Your task to perform on an android device: change notification settings in the gmail app Image 0: 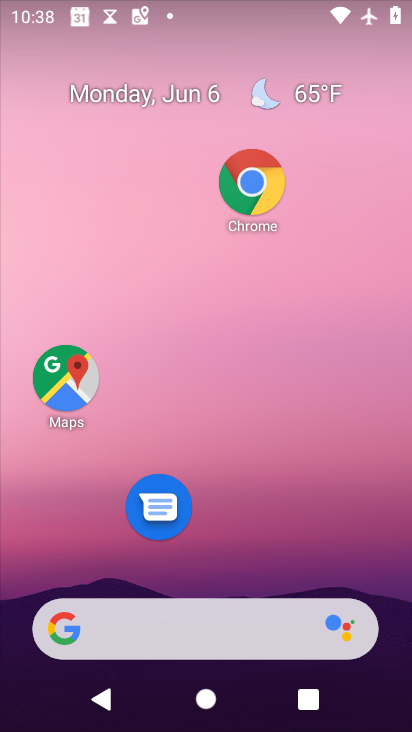
Step 0: drag from (290, 544) to (282, 234)
Your task to perform on an android device: change notification settings in the gmail app Image 1: 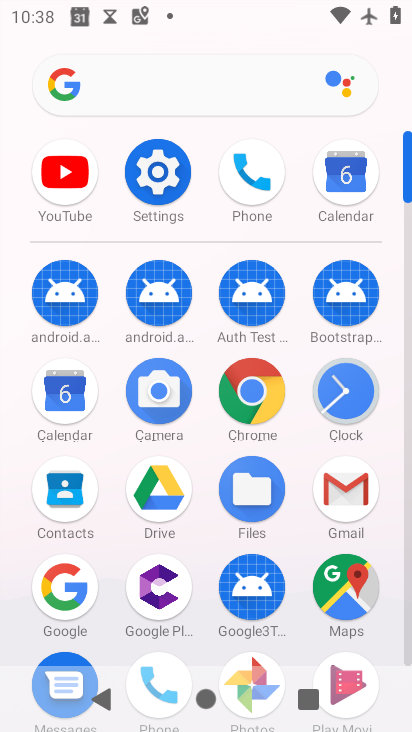
Step 1: click (332, 491)
Your task to perform on an android device: change notification settings in the gmail app Image 2: 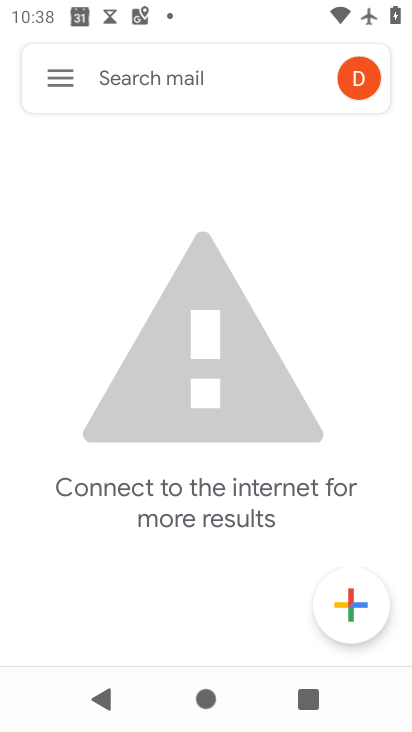
Step 2: click (48, 80)
Your task to perform on an android device: change notification settings in the gmail app Image 3: 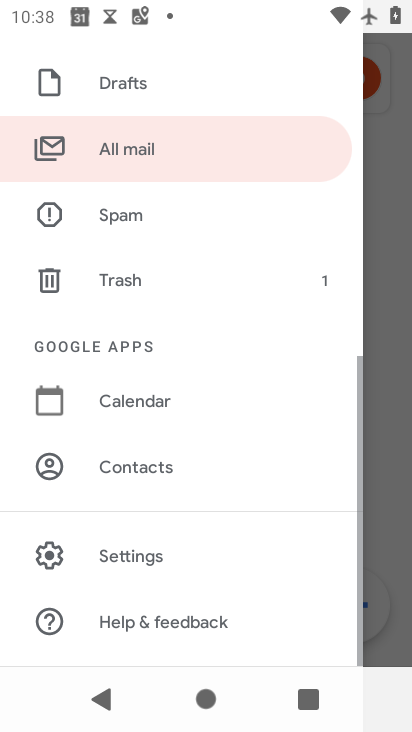
Step 3: click (145, 554)
Your task to perform on an android device: change notification settings in the gmail app Image 4: 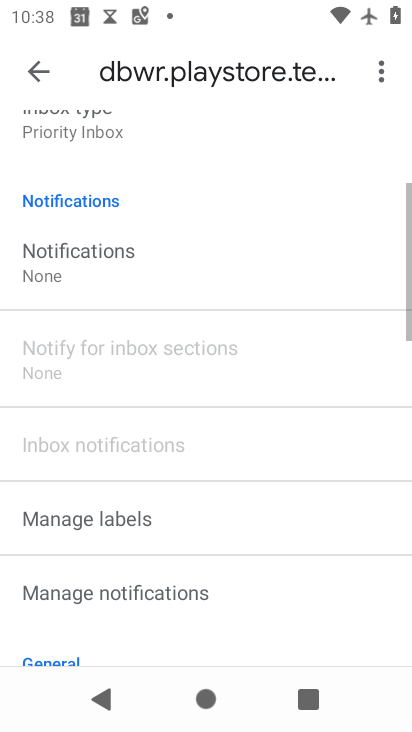
Step 4: click (99, 267)
Your task to perform on an android device: change notification settings in the gmail app Image 5: 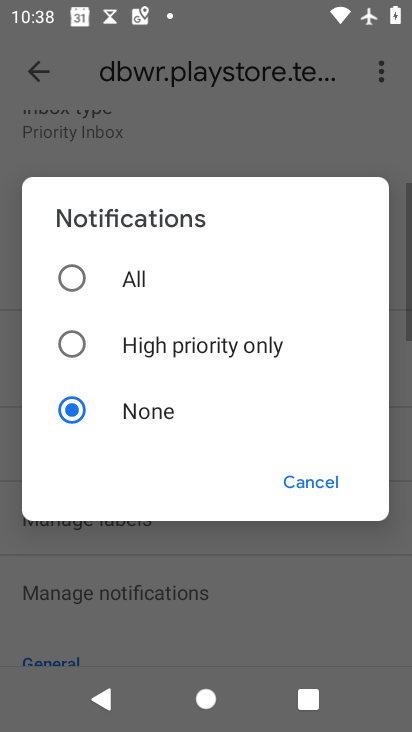
Step 5: click (111, 264)
Your task to perform on an android device: change notification settings in the gmail app Image 6: 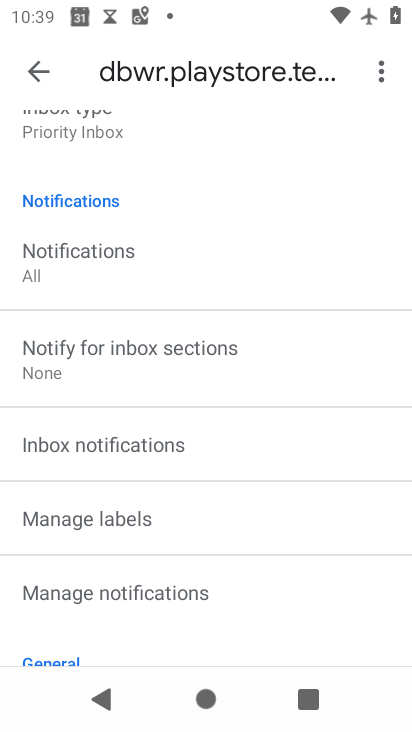
Step 6: task complete